Your task to perform on an android device: find photos in the google photos app Image 0: 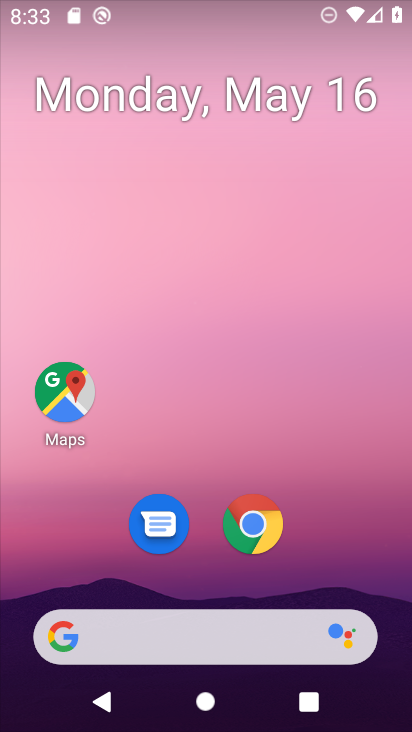
Step 0: drag from (293, 547) to (313, 40)
Your task to perform on an android device: find photos in the google photos app Image 1: 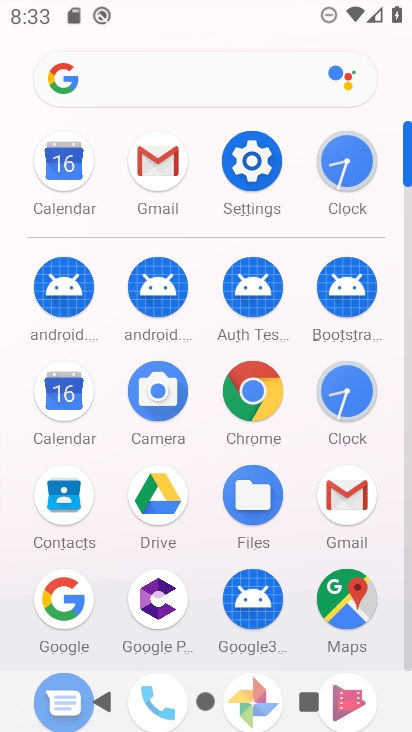
Step 1: drag from (199, 531) to (216, 188)
Your task to perform on an android device: find photos in the google photos app Image 2: 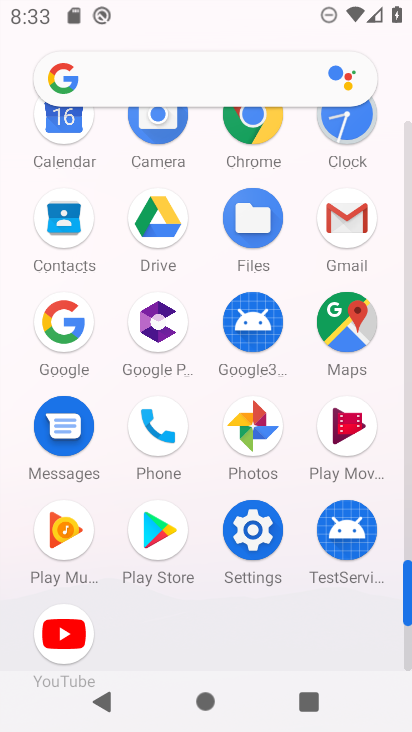
Step 2: click (242, 428)
Your task to perform on an android device: find photos in the google photos app Image 3: 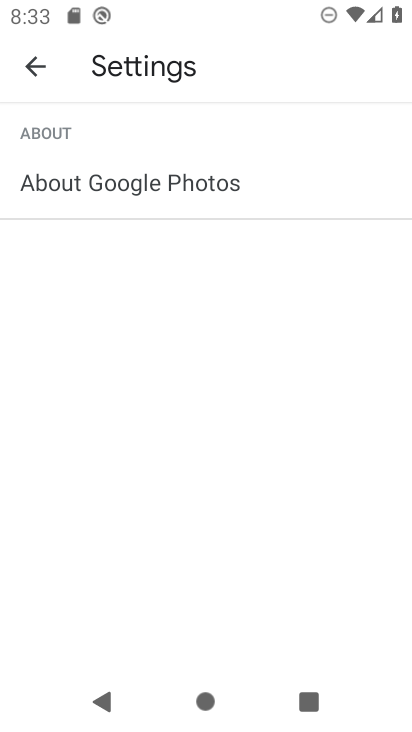
Step 3: click (41, 64)
Your task to perform on an android device: find photos in the google photos app Image 4: 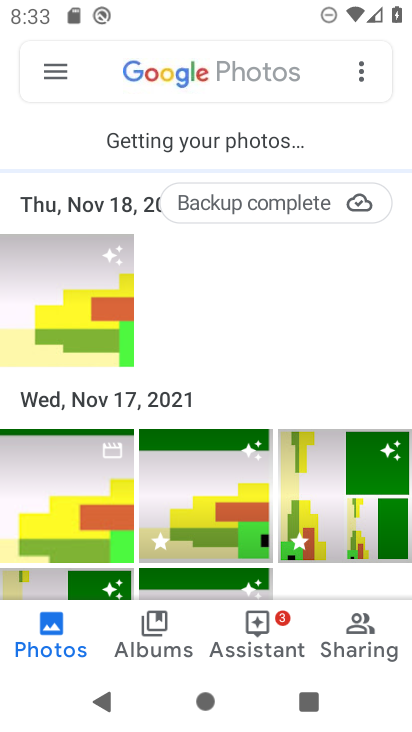
Step 4: task complete